Your task to perform on an android device: find which apps use the phone's location Image 0: 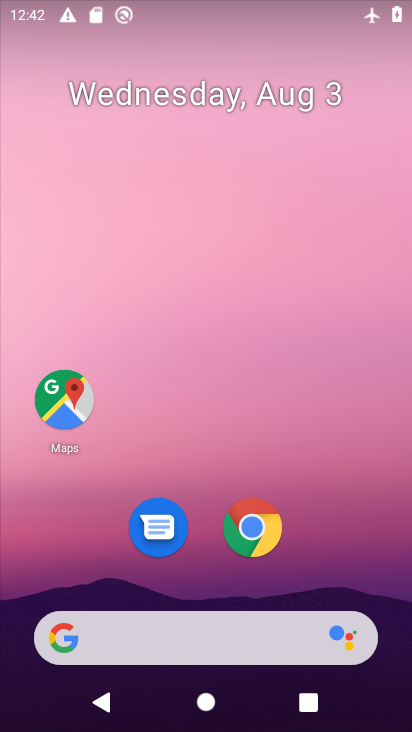
Step 0: drag from (6, 702) to (262, 92)
Your task to perform on an android device: find which apps use the phone's location Image 1: 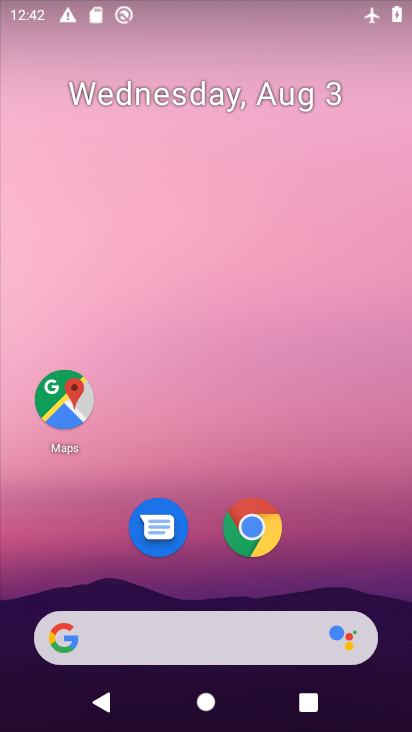
Step 1: drag from (71, 577) to (238, 71)
Your task to perform on an android device: find which apps use the phone's location Image 2: 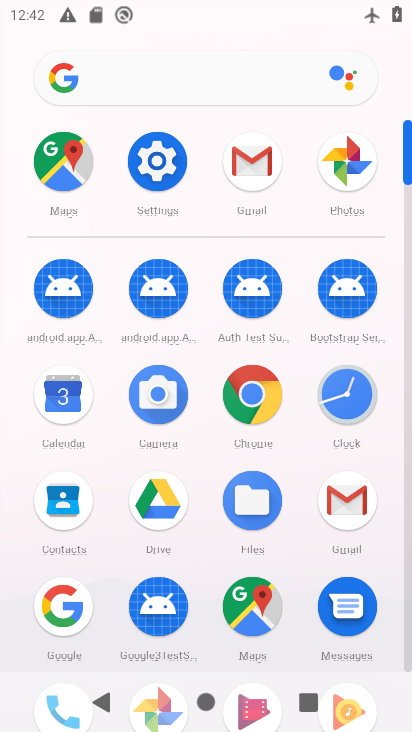
Step 2: drag from (197, 406) to (209, 243)
Your task to perform on an android device: find which apps use the phone's location Image 3: 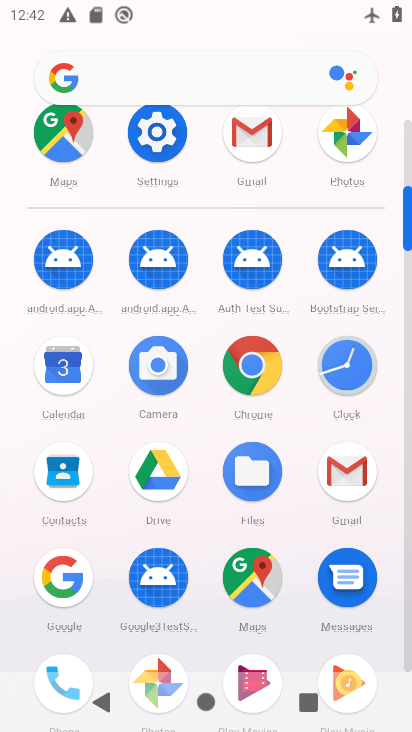
Step 3: drag from (177, 553) to (179, 245)
Your task to perform on an android device: find which apps use the phone's location Image 4: 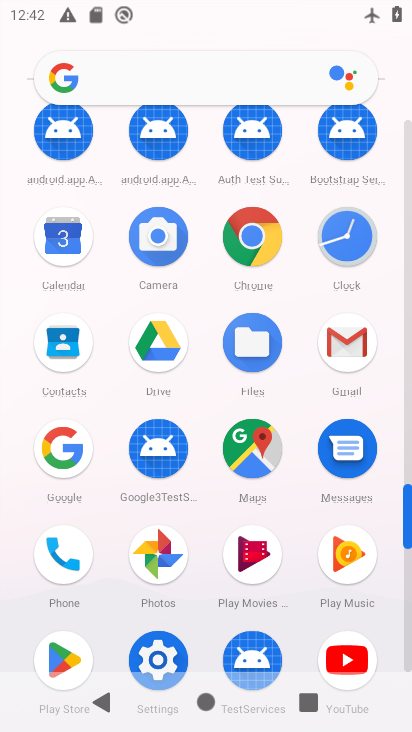
Step 4: click (144, 650)
Your task to perform on an android device: find which apps use the phone's location Image 5: 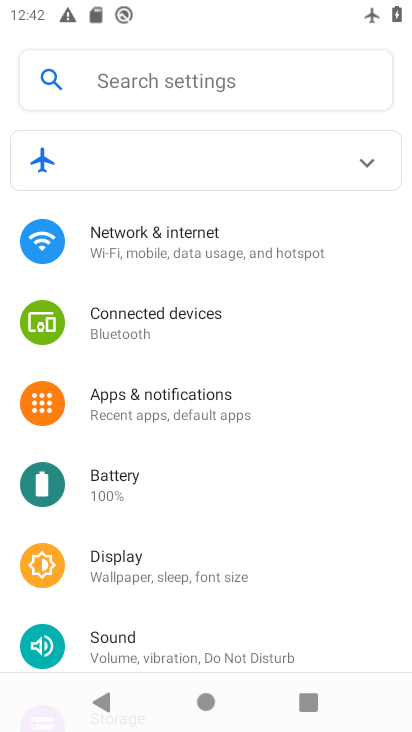
Step 5: drag from (221, 614) to (258, 225)
Your task to perform on an android device: find which apps use the phone's location Image 6: 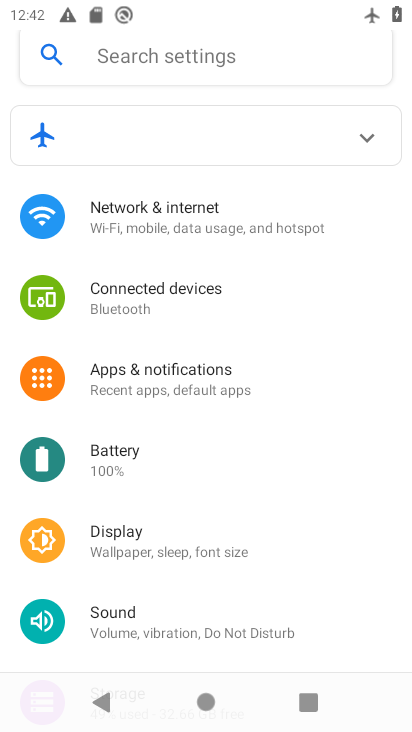
Step 6: drag from (198, 549) to (249, 60)
Your task to perform on an android device: find which apps use the phone's location Image 7: 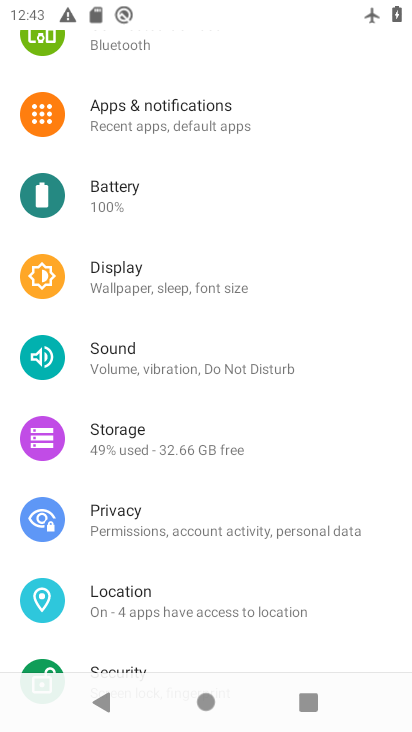
Step 7: click (143, 594)
Your task to perform on an android device: find which apps use the phone's location Image 8: 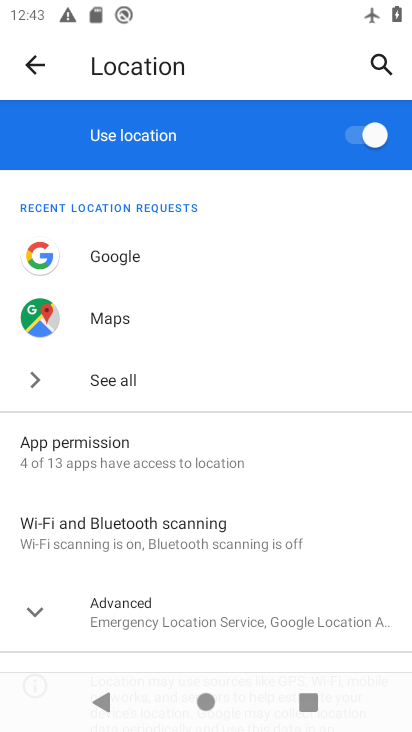
Step 8: click (102, 453)
Your task to perform on an android device: find which apps use the phone's location Image 9: 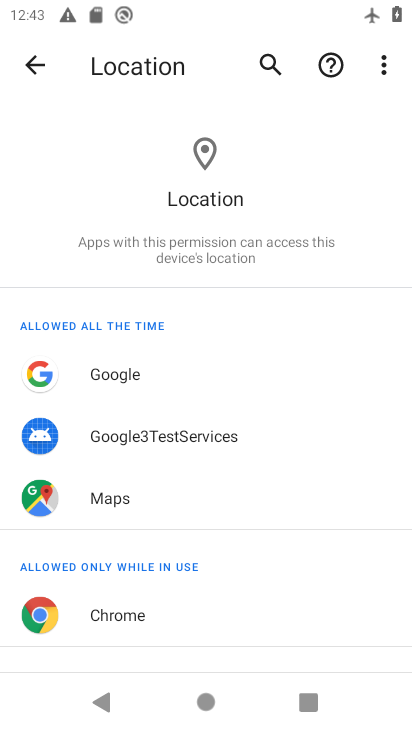
Step 9: task complete